Your task to perform on an android device: uninstall "Fetch Rewards" Image 0: 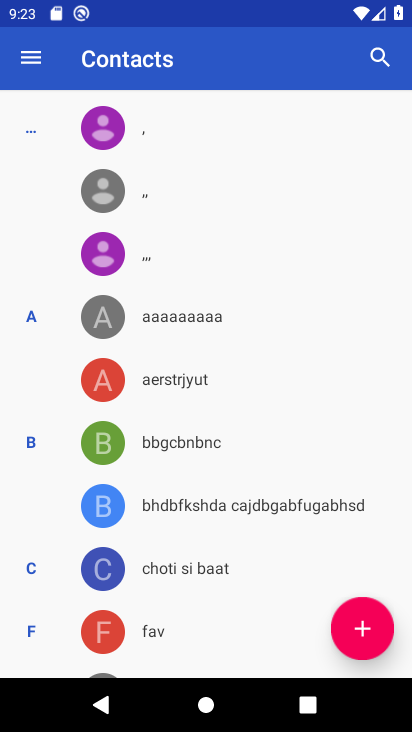
Step 0: press home button
Your task to perform on an android device: uninstall "Fetch Rewards" Image 1: 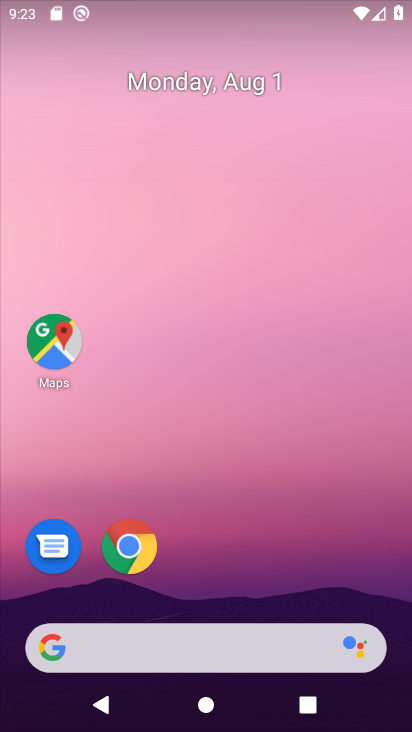
Step 1: drag from (190, 605) to (232, 4)
Your task to perform on an android device: uninstall "Fetch Rewards" Image 2: 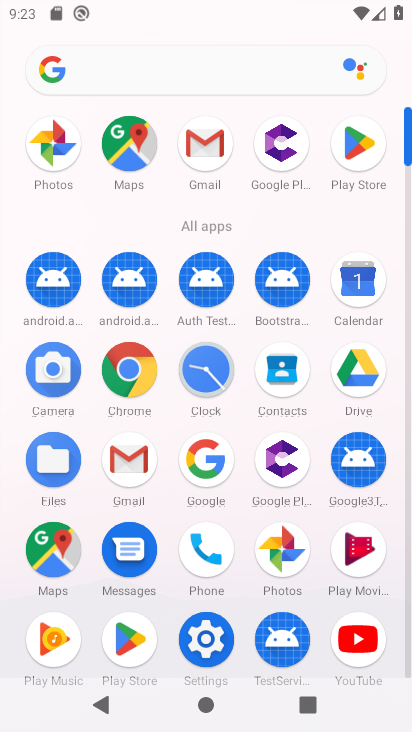
Step 2: click (354, 135)
Your task to perform on an android device: uninstall "Fetch Rewards" Image 3: 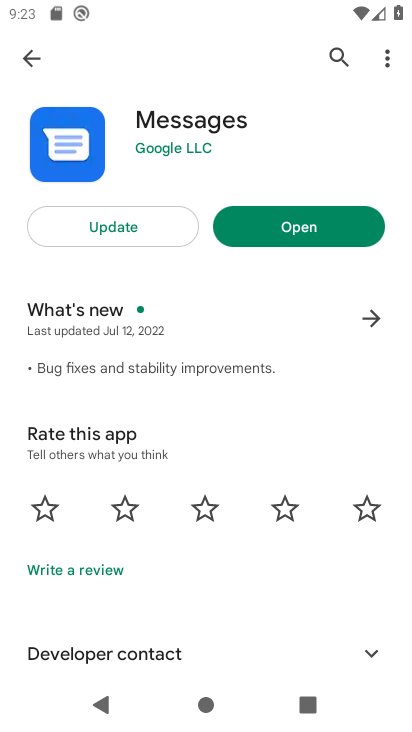
Step 3: click (27, 48)
Your task to perform on an android device: uninstall "Fetch Rewards" Image 4: 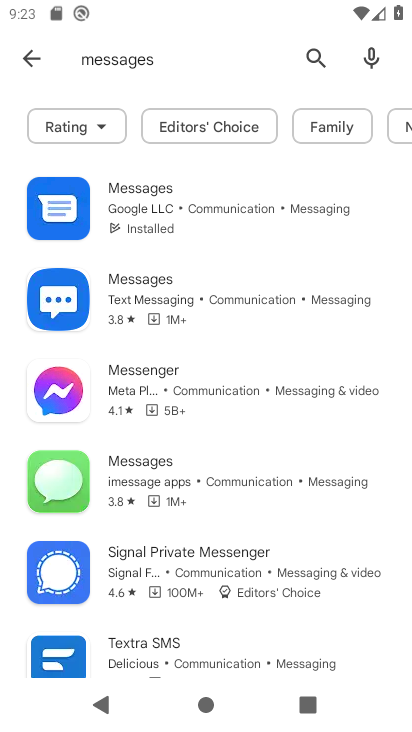
Step 4: click (306, 56)
Your task to perform on an android device: uninstall "Fetch Rewards" Image 5: 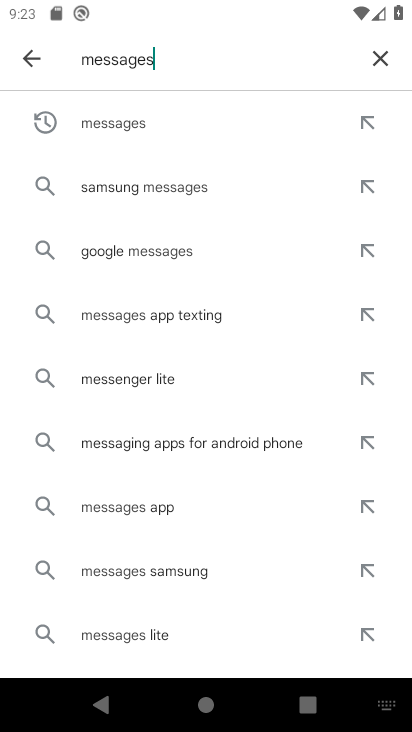
Step 5: click (377, 59)
Your task to perform on an android device: uninstall "Fetch Rewards" Image 6: 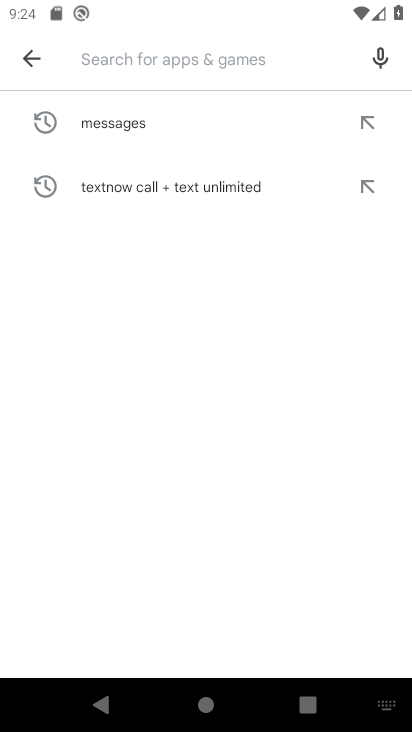
Step 6: type "Fetch Rewards"
Your task to perform on an android device: uninstall "Fetch Rewards" Image 7: 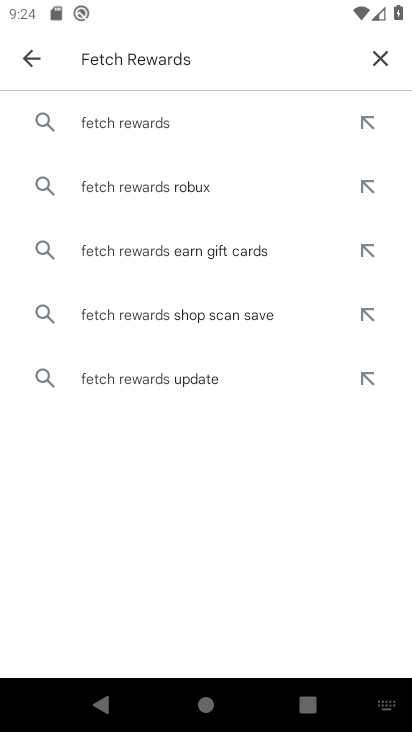
Step 7: click (179, 118)
Your task to perform on an android device: uninstall "Fetch Rewards" Image 8: 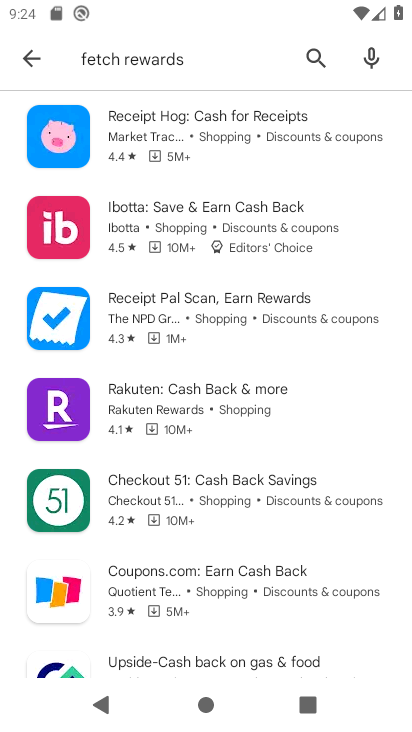
Step 8: task complete